Your task to perform on an android device: make emails show in primary in the gmail app Image 0: 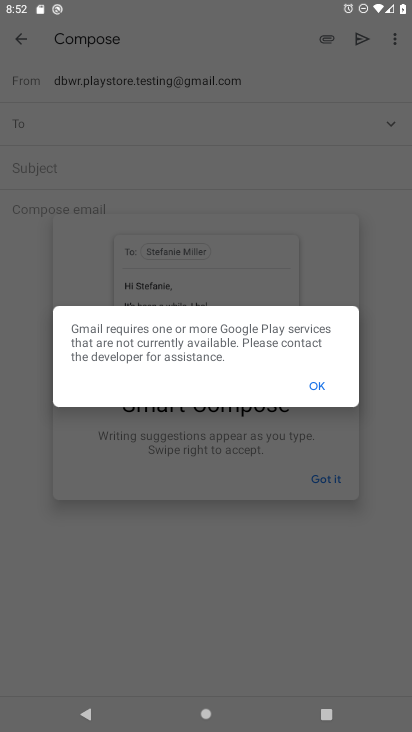
Step 0: press home button
Your task to perform on an android device: make emails show in primary in the gmail app Image 1: 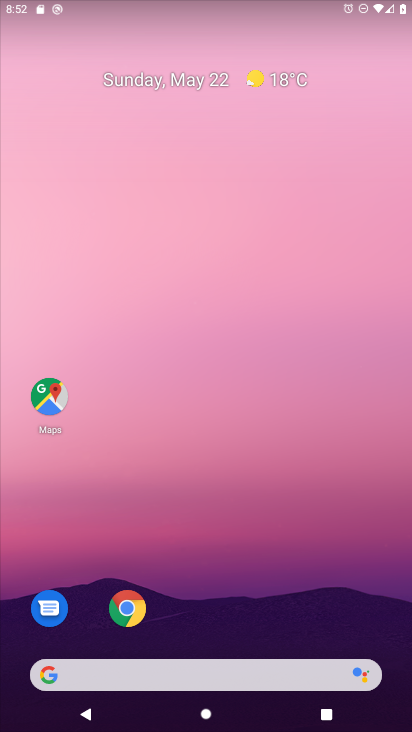
Step 1: drag from (224, 688) to (224, 143)
Your task to perform on an android device: make emails show in primary in the gmail app Image 2: 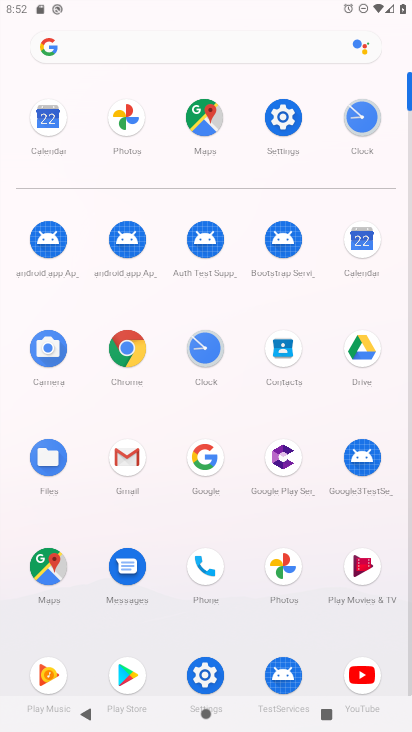
Step 2: click (121, 459)
Your task to perform on an android device: make emails show in primary in the gmail app Image 3: 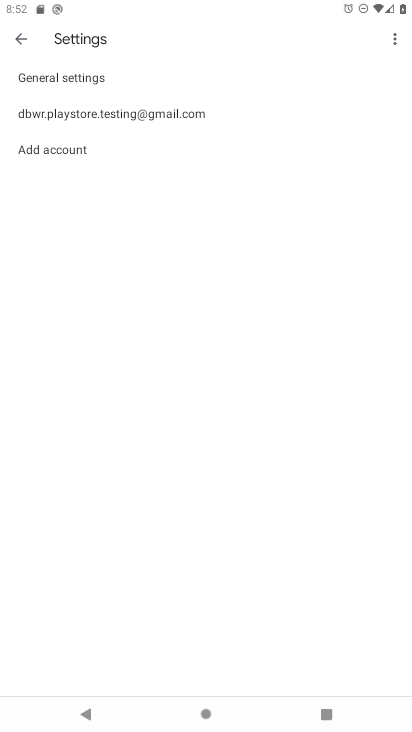
Step 3: click (142, 109)
Your task to perform on an android device: make emails show in primary in the gmail app Image 4: 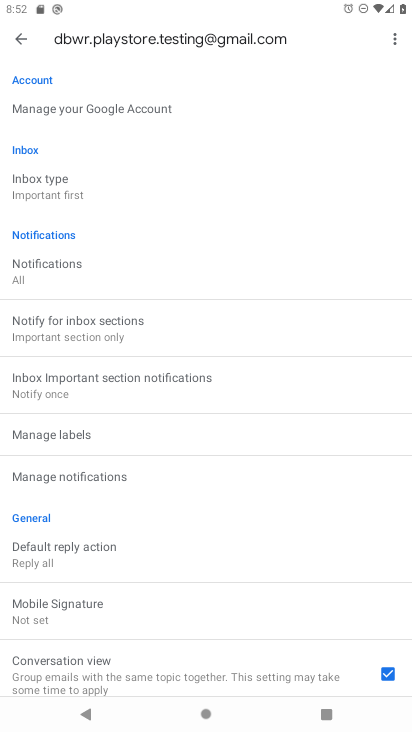
Step 4: click (27, 191)
Your task to perform on an android device: make emails show in primary in the gmail app Image 5: 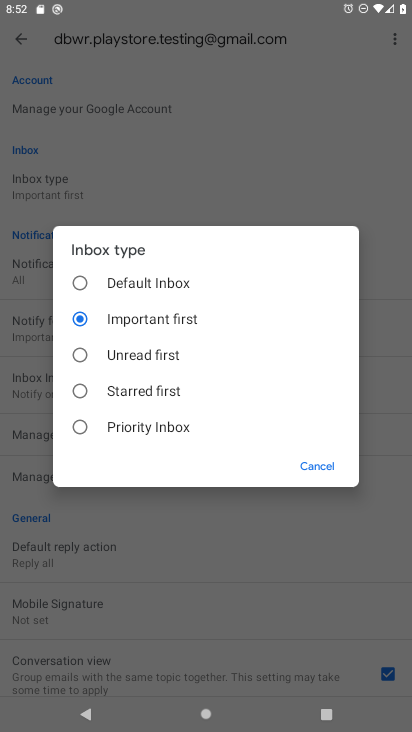
Step 5: click (74, 282)
Your task to perform on an android device: make emails show in primary in the gmail app Image 6: 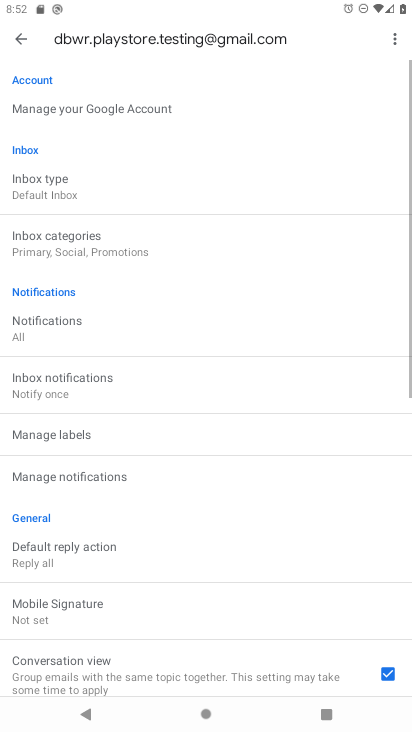
Step 6: click (69, 246)
Your task to perform on an android device: make emails show in primary in the gmail app Image 7: 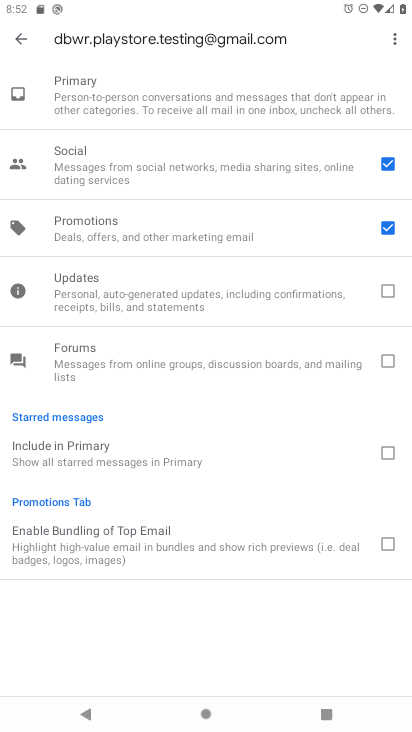
Step 7: click (390, 226)
Your task to perform on an android device: make emails show in primary in the gmail app Image 8: 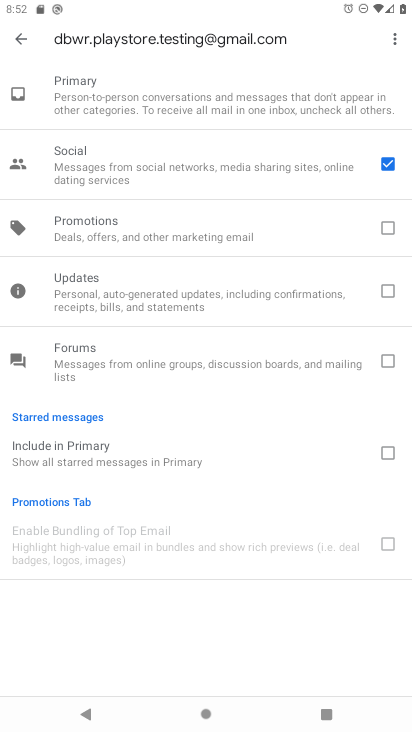
Step 8: click (382, 160)
Your task to perform on an android device: make emails show in primary in the gmail app Image 9: 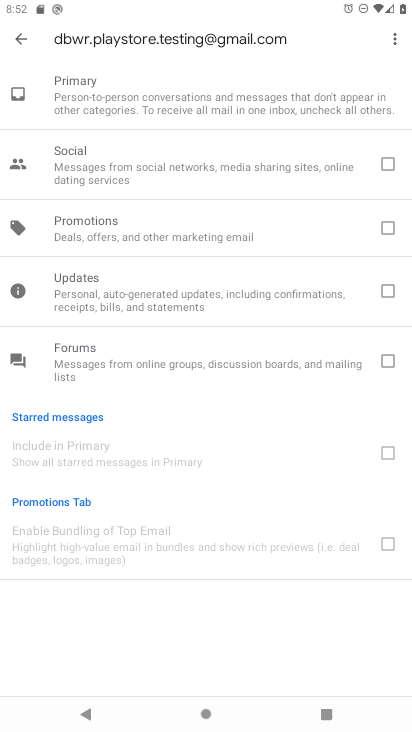
Step 9: click (20, 32)
Your task to perform on an android device: make emails show in primary in the gmail app Image 10: 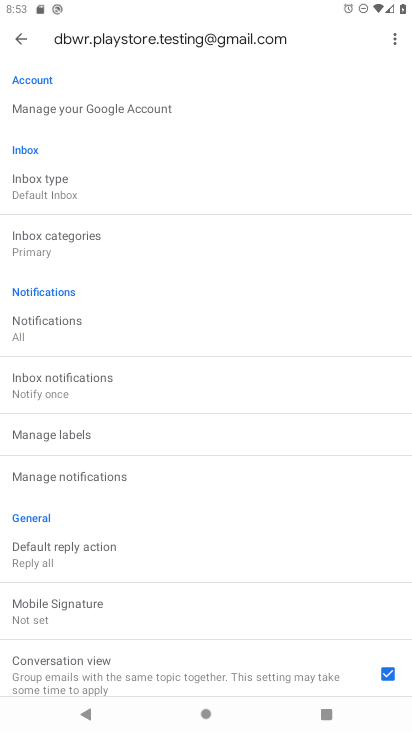
Step 10: task complete